Your task to perform on an android device: star an email in the gmail app Image 0: 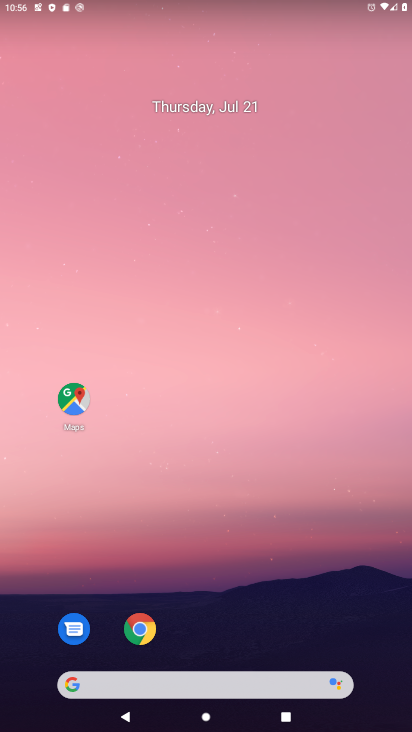
Step 0: click (262, 692)
Your task to perform on an android device: star an email in the gmail app Image 1: 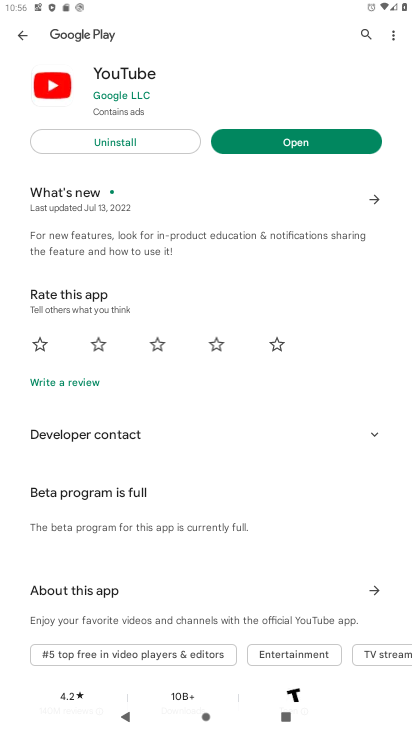
Step 1: press home button
Your task to perform on an android device: star an email in the gmail app Image 2: 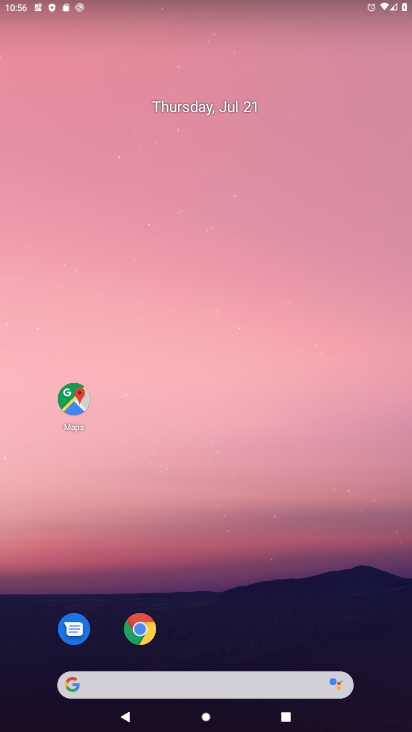
Step 2: drag from (201, 624) to (222, 123)
Your task to perform on an android device: star an email in the gmail app Image 3: 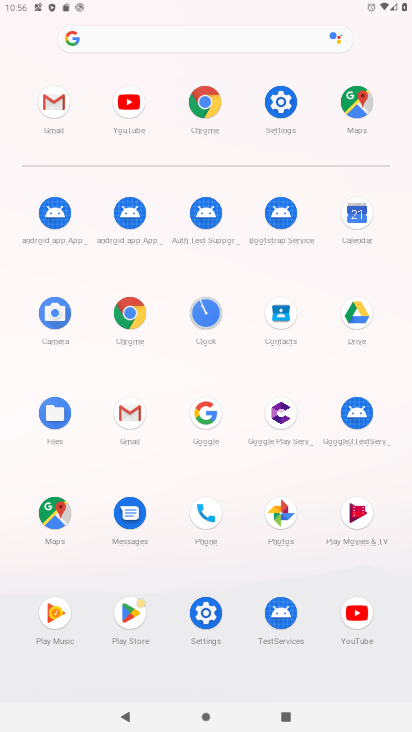
Step 3: click (50, 98)
Your task to perform on an android device: star an email in the gmail app Image 4: 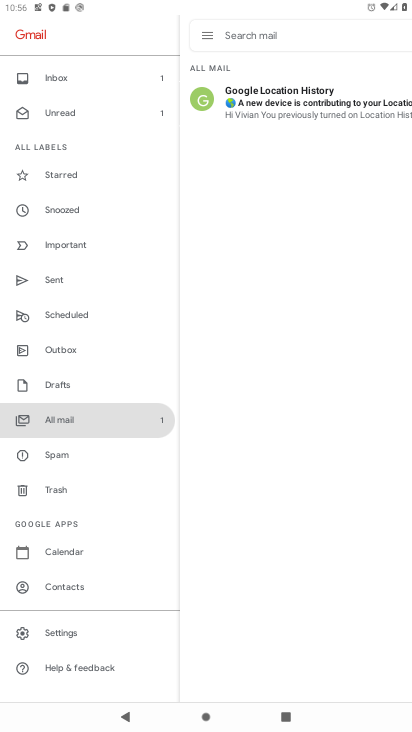
Step 4: click (217, 36)
Your task to perform on an android device: star an email in the gmail app Image 5: 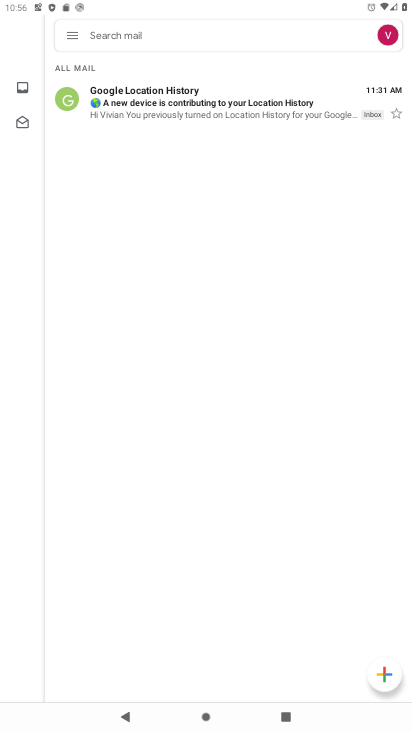
Step 5: click (395, 117)
Your task to perform on an android device: star an email in the gmail app Image 6: 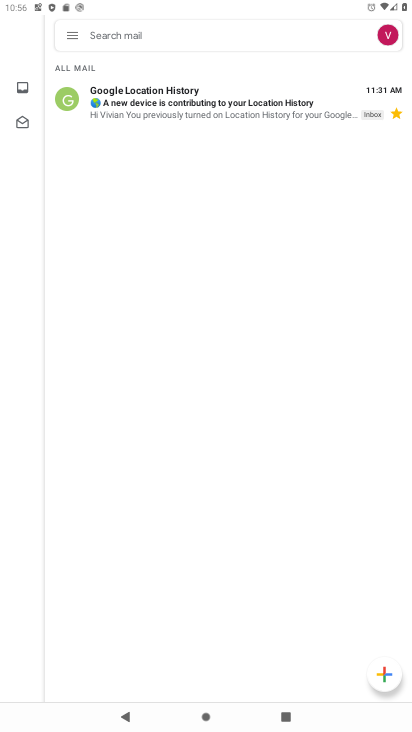
Step 6: task complete